Your task to perform on an android device: Go to Wikipedia Image 0: 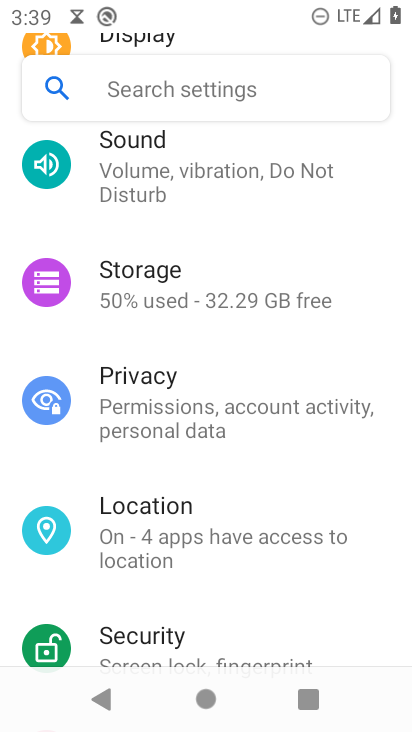
Step 0: press home button
Your task to perform on an android device: Go to Wikipedia Image 1: 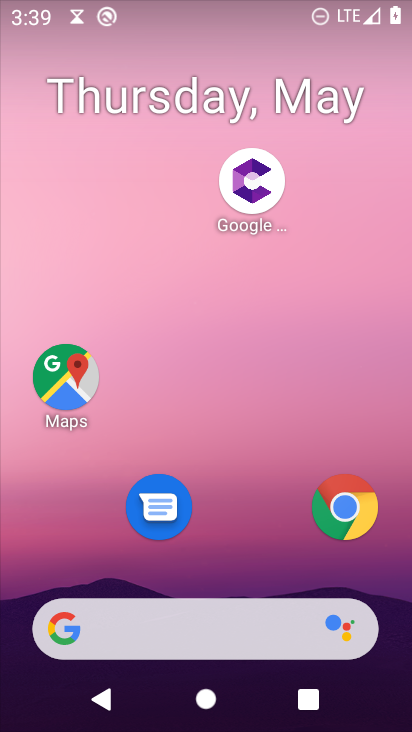
Step 1: click (63, 632)
Your task to perform on an android device: Go to Wikipedia Image 2: 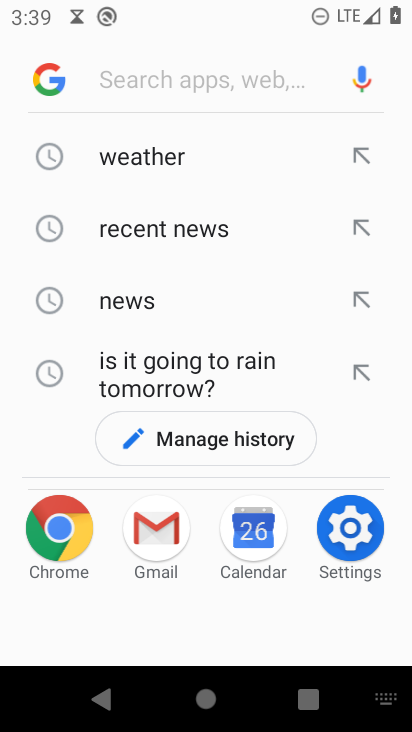
Step 2: type " Wikipedia"
Your task to perform on an android device: Go to Wikipedia Image 3: 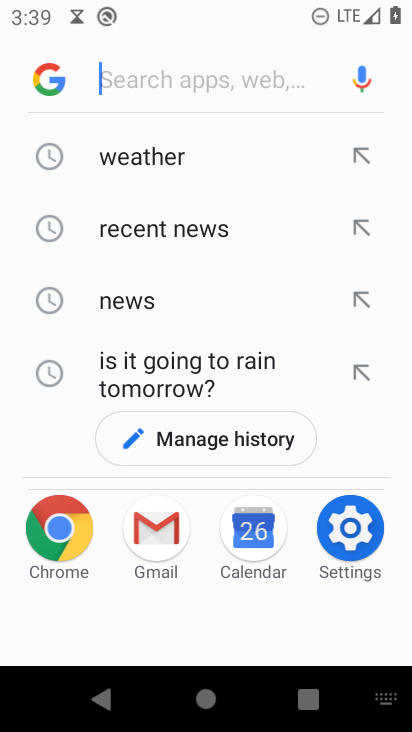
Step 3: click (207, 80)
Your task to perform on an android device: Go to Wikipedia Image 4: 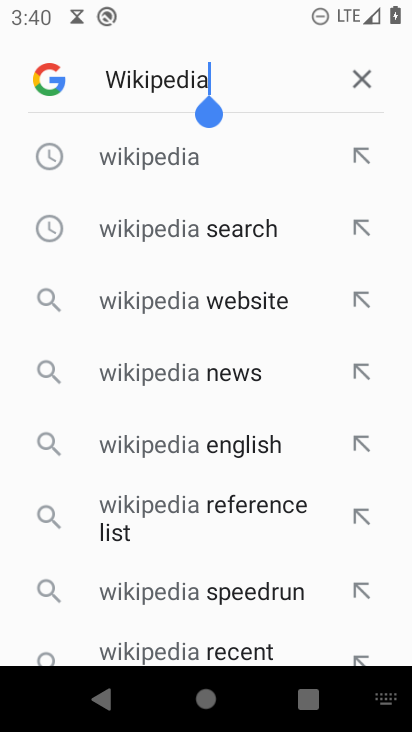
Step 4: click (159, 163)
Your task to perform on an android device: Go to Wikipedia Image 5: 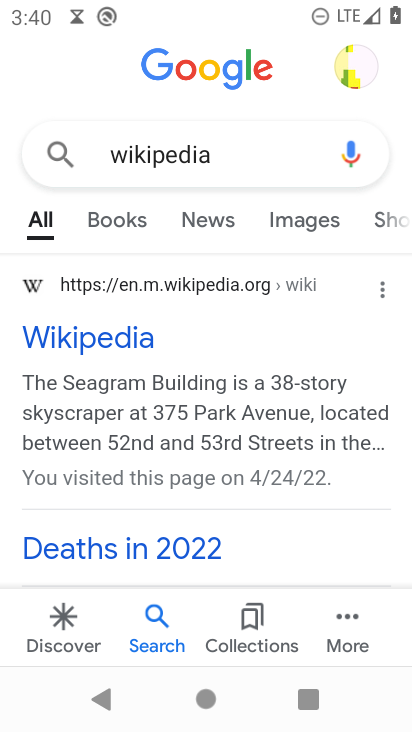
Step 5: click (76, 336)
Your task to perform on an android device: Go to Wikipedia Image 6: 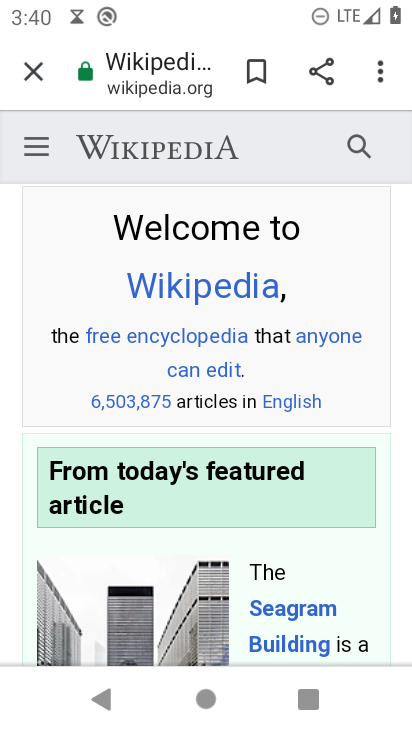
Step 6: task complete